Your task to perform on an android device: check the backup settings in the google photos Image 0: 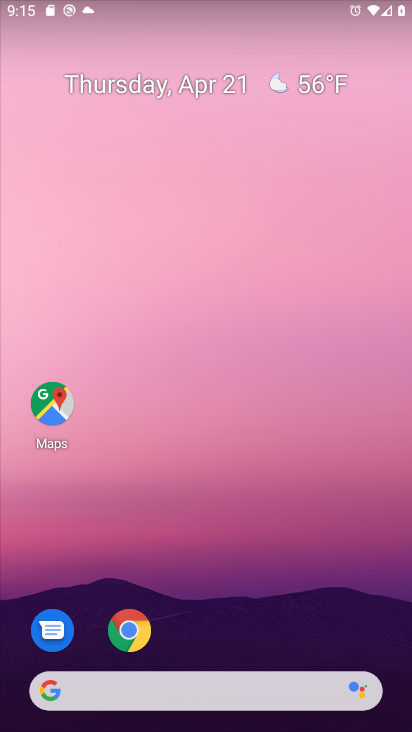
Step 0: drag from (208, 583) to (334, 23)
Your task to perform on an android device: check the backup settings in the google photos Image 1: 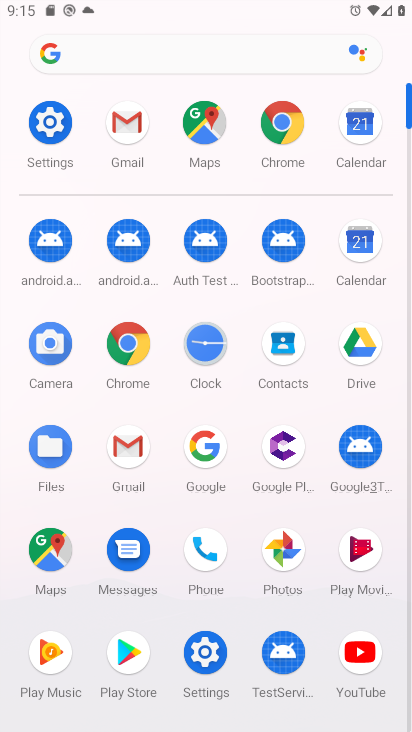
Step 1: click (284, 558)
Your task to perform on an android device: check the backup settings in the google photos Image 2: 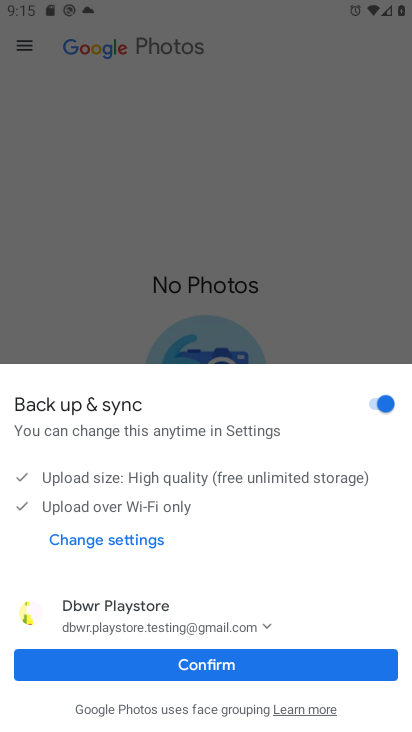
Step 2: click (227, 660)
Your task to perform on an android device: check the backup settings in the google photos Image 3: 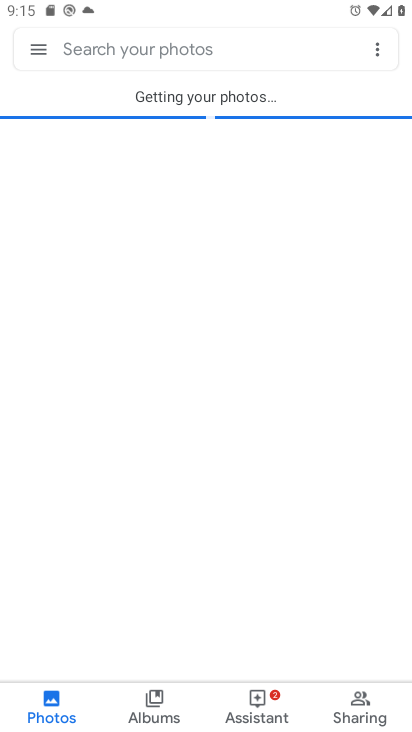
Step 3: click (27, 53)
Your task to perform on an android device: check the backup settings in the google photos Image 4: 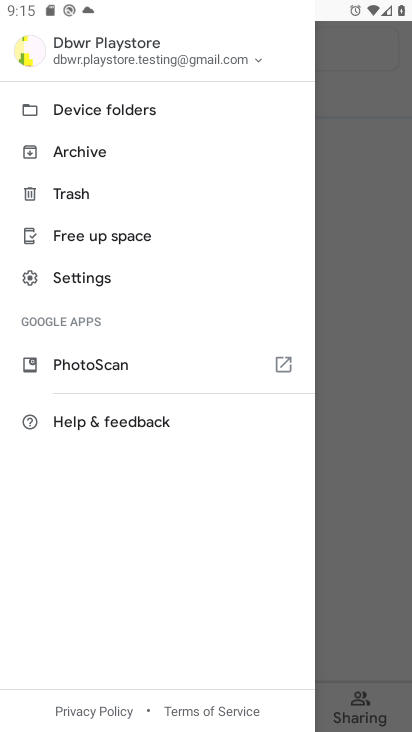
Step 4: click (94, 288)
Your task to perform on an android device: check the backup settings in the google photos Image 5: 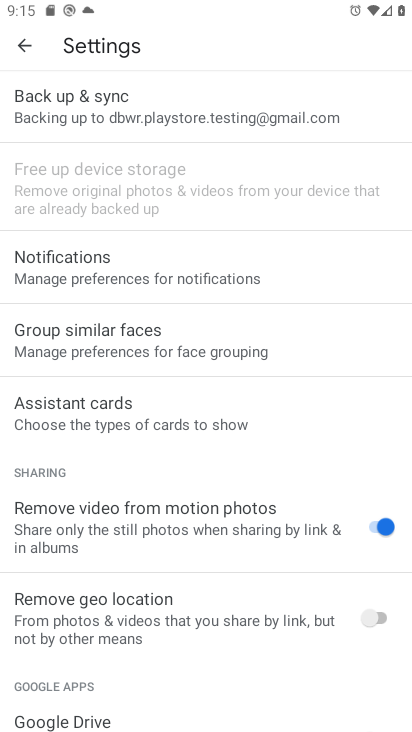
Step 5: click (146, 104)
Your task to perform on an android device: check the backup settings in the google photos Image 6: 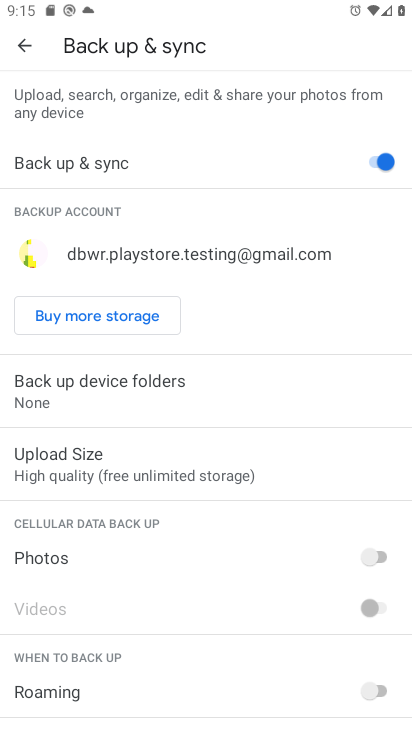
Step 6: task complete